Your task to perform on an android device: open app "Booking.com: Hotels and more" (install if not already installed) and enter user name: "misting@outlook.com" and password: "blandly" Image 0: 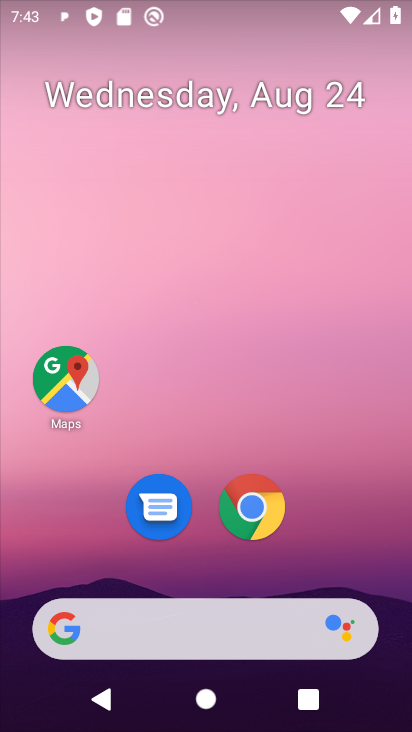
Step 0: press home button
Your task to perform on an android device: open app "Booking.com: Hotels and more" (install if not already installed) and enter user name: "misting@outlook.com" and password: "blandly" Image 1: 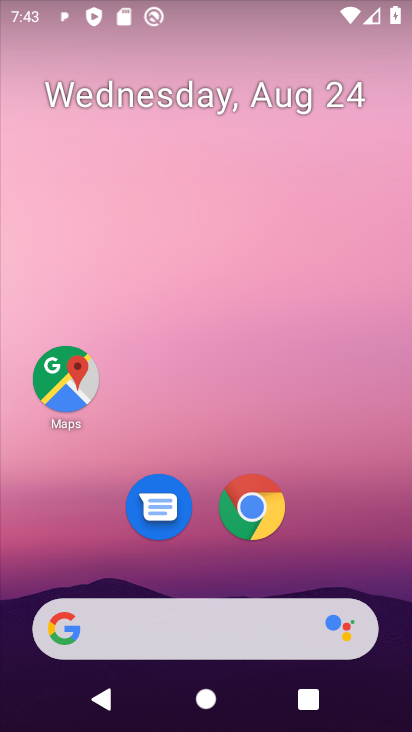
Step 1: drag from (383, 557) to (371, 110)
Your task to perform on an android device: open app "Booking.com: Hotels and more" (install if not already installed) and enter user name: "misting@outlook.com" and password: "blandly" Image 2: 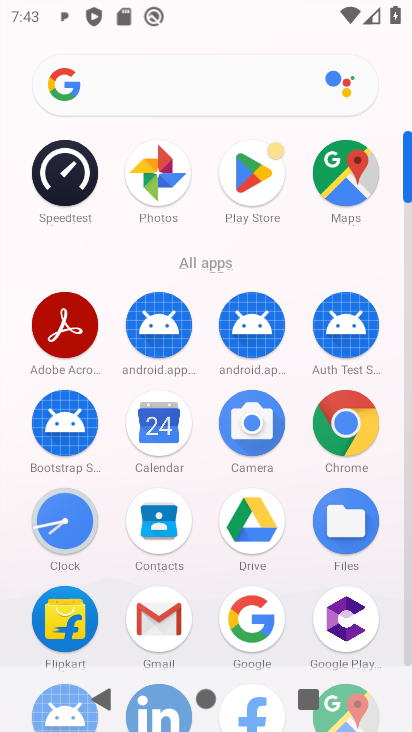
Step 2: click (259, 176)
Your task to perform on an android device: open app "Booking.com: Hotels and more" (install if not already installed) and enter user name: "misting@outlook.com" and password: "blandly" Image 3: 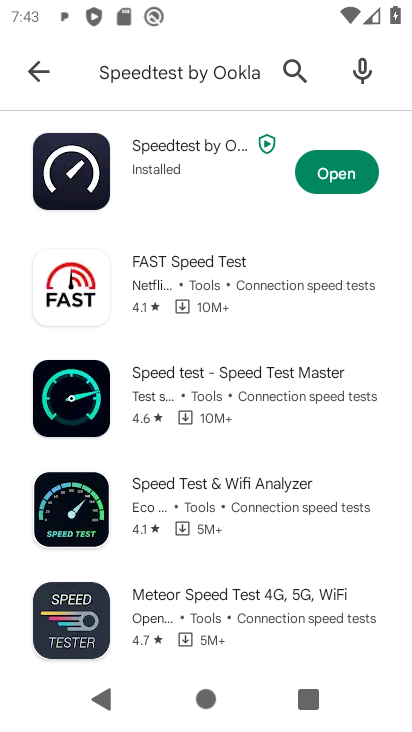
Step 3: press back button
Your task to perform on an android device: open app "Booking.com: Hotels and more" (install if not already installed) and enter user name: "misting@outlook.com" and password: "blandly" Image 4: 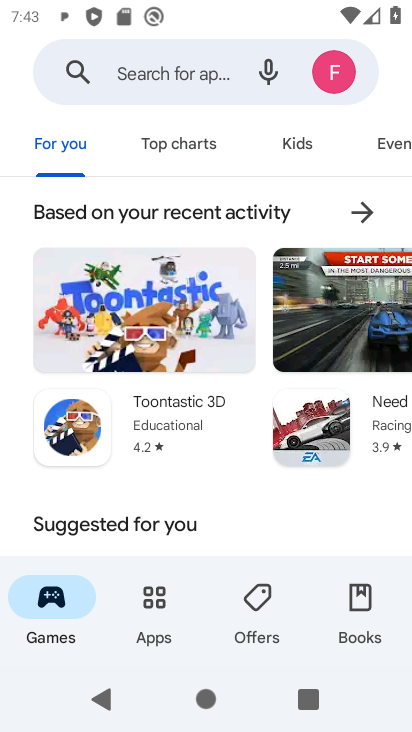
Step 4: click (139, 65)
Your task to perform on an android device: open app "Booking.com: Hotels and more" (install if not already installed) and enter user name: "misting@outlook.com" and password: "blandly" Image 5: 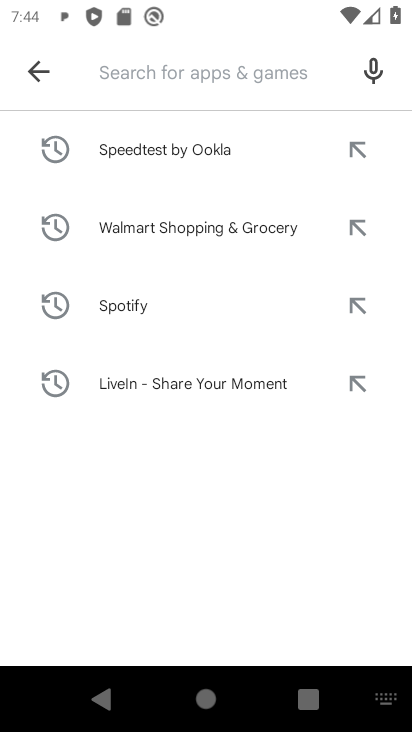
Step 5: type "Booking.com: Hotels and more"
Your task to perform on an android device: open app "Booking.com: Hotels and more" (install if not already installed) and enter user name: "misting@outlook.com" and password: "blandly" Image 6: 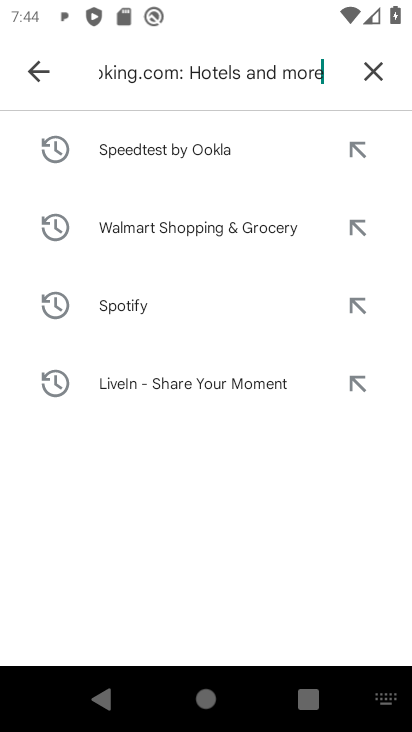
Step 6: press enter
Your task to perform on an android device: open app "Booking.com: Hotels and more" (install if not already installed) and enter user name: "misting@outlook.com" and password: "blandly" Image 7: 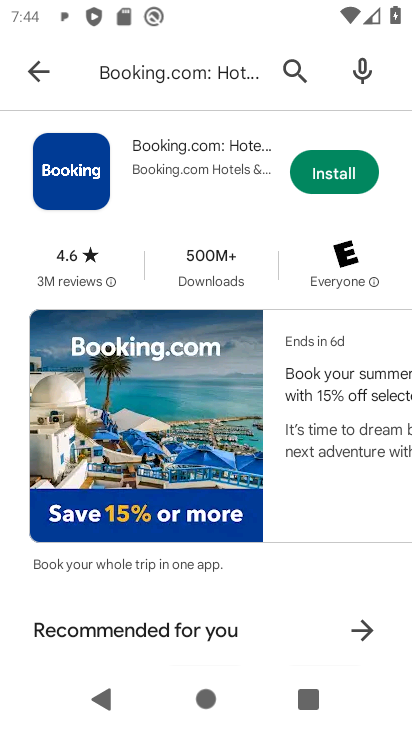
Step 7: click (344, 175)
Your task to perform on an android device: open app "Booking.com: Hotels and more" (install if not already installed) and enter user name: "misting@outlook.com" and password: "blandly" Image 8: 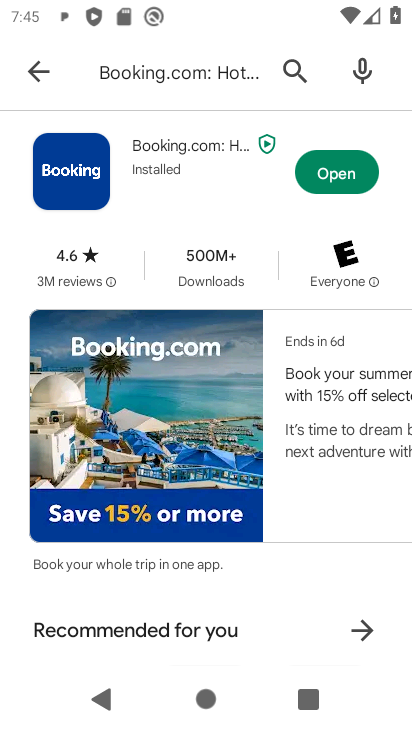
Step 8: click (332, 182)
Your task to perform on an android device: open app "Booking.com: Hotels and more" (install if not already installed) and enter user name: "misting@outlook.com" and password: "blandly" Image 9: 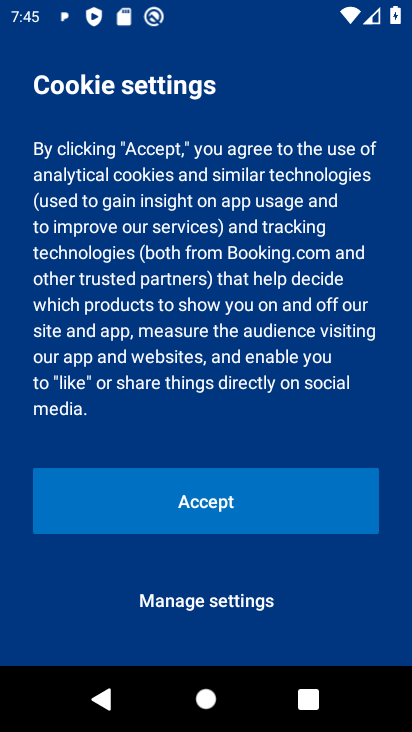
Step 9: click (264, 501)
Your task to perform on an android device: open app "Booking.com: Hotels and more" (install if not already installed) and enter user name: "misting@outlook.com" and password: "blandly" Image 10: 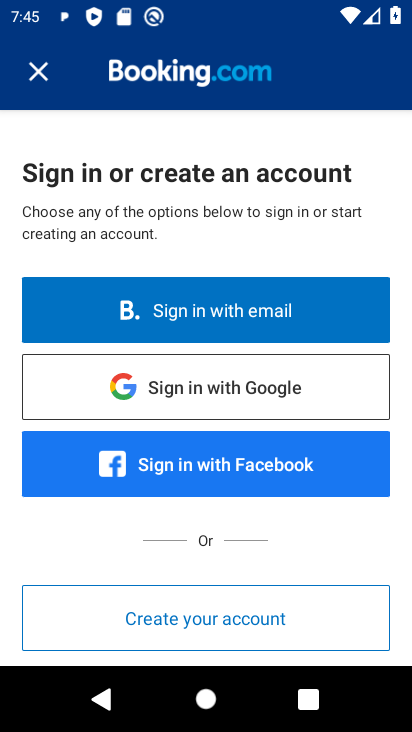
Step 10: click (241, 310)
Your task to perform on an android device: open app "Booking.com: Hotels and more" (install if not already installed) and enter user name: "misting@outlook.com" and password: "blandly" Image 11: 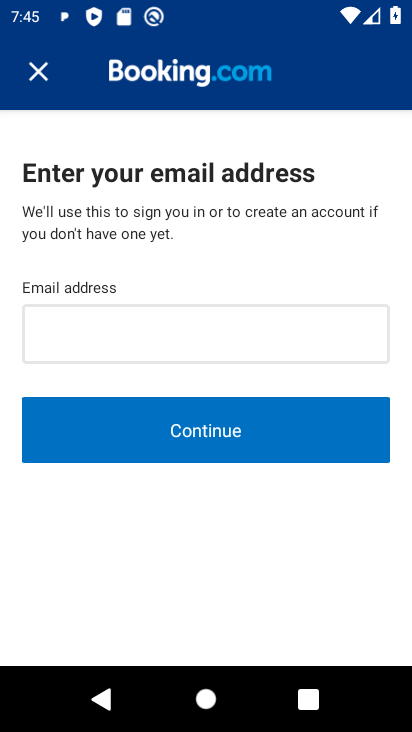
Step 11: click (204, 340)
Your task to perform on an android device: open app "Booking.com: Hotels and more" (install if not already installed) and enter user name: "misting@outlook.com" and password: "blandly" Image 12: 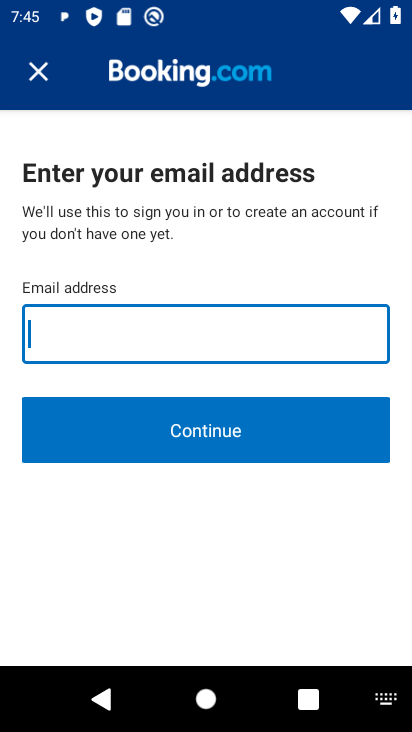
Step 12: type "misting@outlook.com"
Your task to perform on an android device: open app "Booking.com: Hotels and more" (install if not already installed) and enter user name: "misting@outlook.com" and password: "blandly" Image 13: 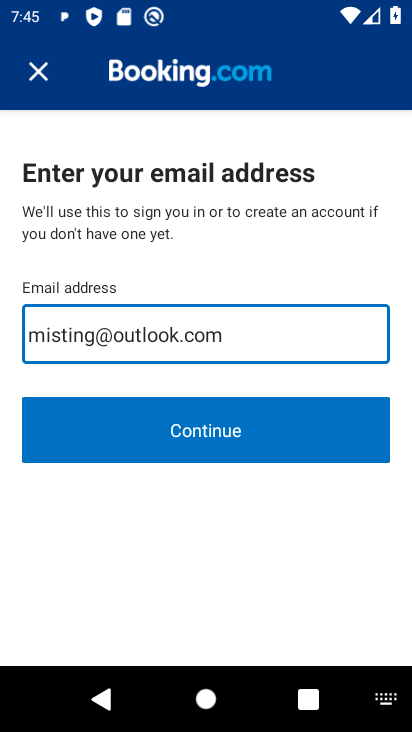
Step 13: click (257, 436)
Your task to perform on an android device: open app "Booking.com: Hotels and more" (install if not already installed) and enter user name: "misting@outlook.com" and password: "blandly" Image 14: 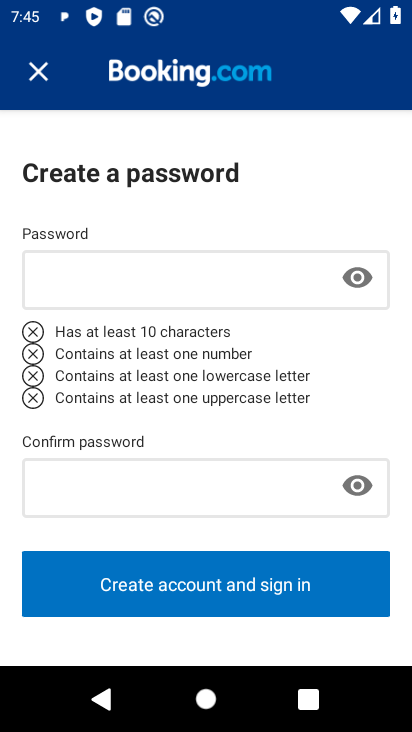
Step 14: click (113, 272)
Your task to perform on an android device: open app "Booking.com: Hotels and more" (install if not already installed) and enter user name: "misting@outlook.com" and password: "blandly" Image 15: 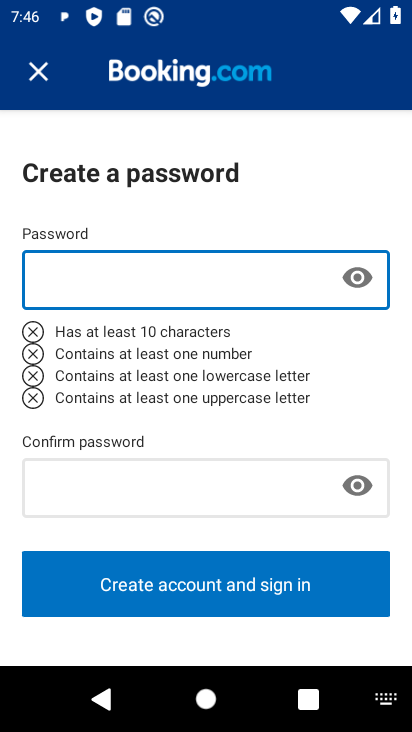
Step 15: type "blandly"
Your task to perform on an android device: open app "Booking.com: Hotels and more" (install if not already installed) and enter user name: "misting@outlook.com" and password: "blandly" Image 16: 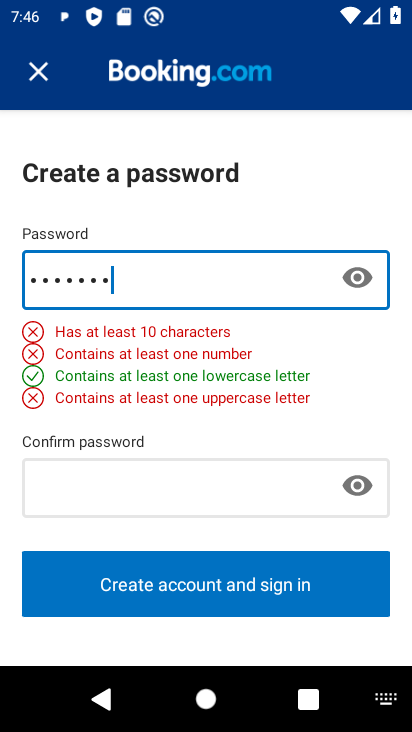
Step 16: task complete